Your task to perform on an android device: turn off airplane mode Image 0: 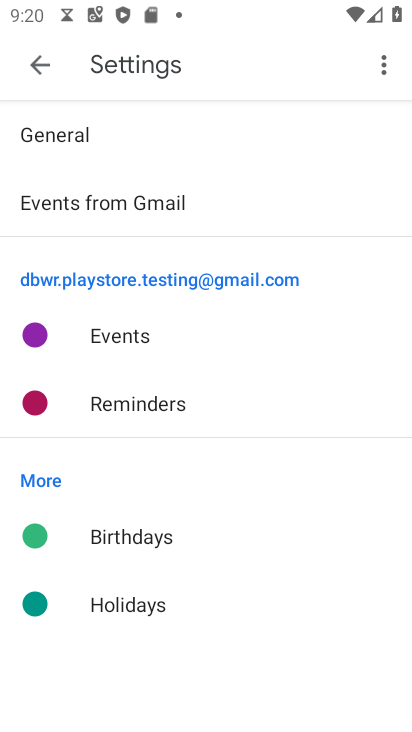
Step 0: drag from (288, 8) to (197, 492)
Your task to perform on an android device: turn off airplane mode Image 1: 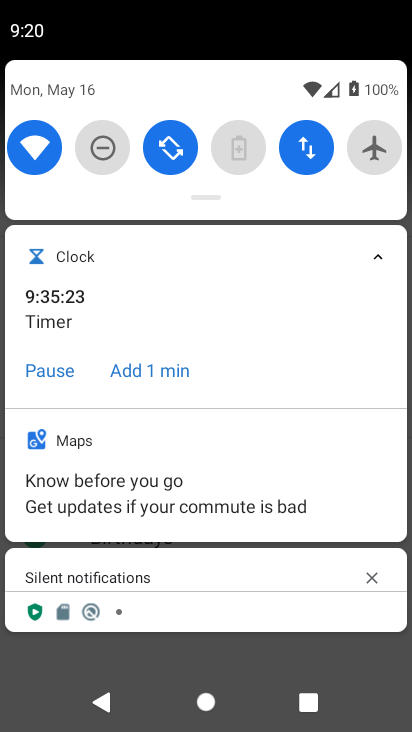
Step 1: task complete